Your task to perform on an android device: add a label to a message in the gmail app Image 0: 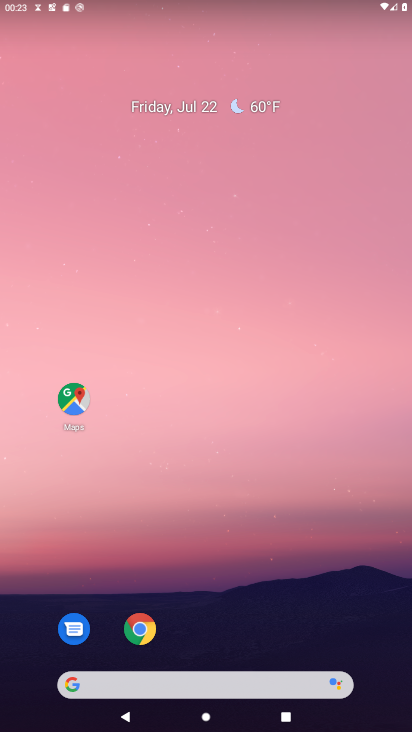
Step 0: drag from (240, 623) to (164, 229)
Your task to perform on an android device: add a label to a message in the gmail app Image 1: 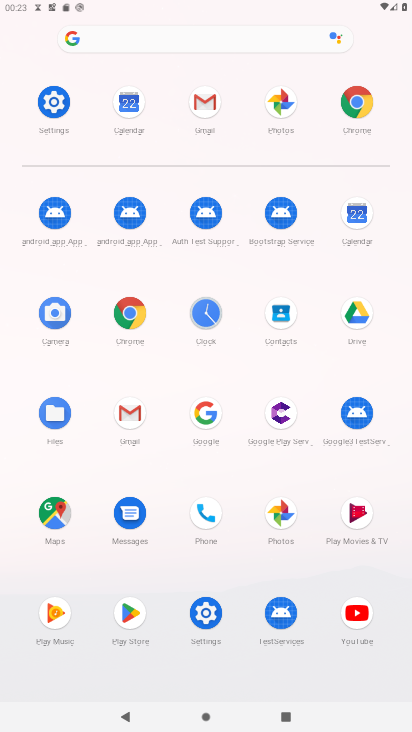
Step 1: click (140, 413)
Your task to perform on an android device: add a label to a message in the gmail app Image 2: 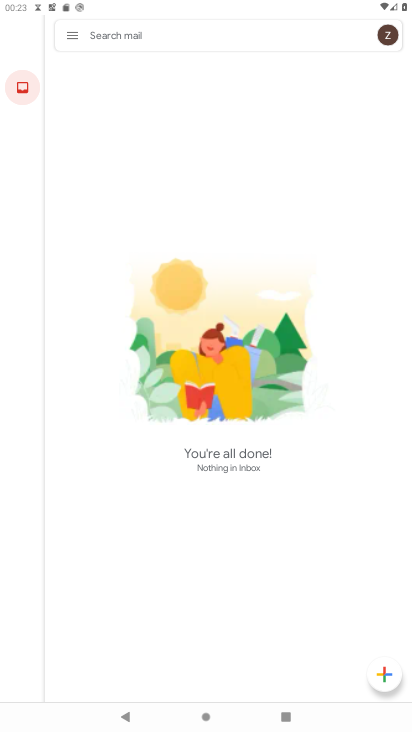
Step 2: click (71, 24)
Your task to perform on an android device: add a label to a message in the gmail app Image 3: 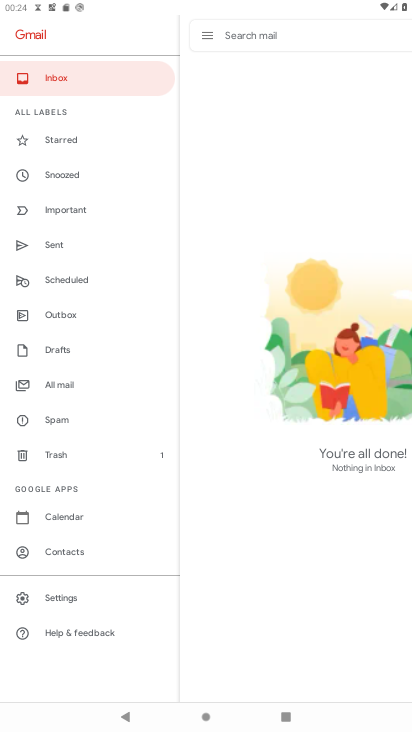
Step 3: click (81, 376)
Your task to perform on an android device: add a label to a message in the gmail app Image 4: 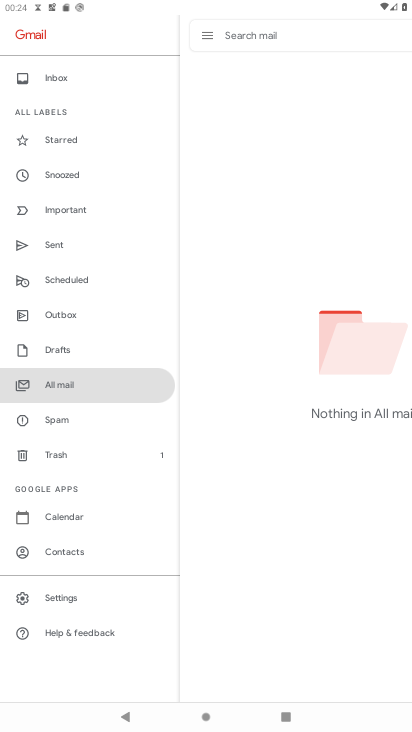
Step 4: task complete